Your task to perform on an android device: Search for sushi restaurants on Maps Image 0: 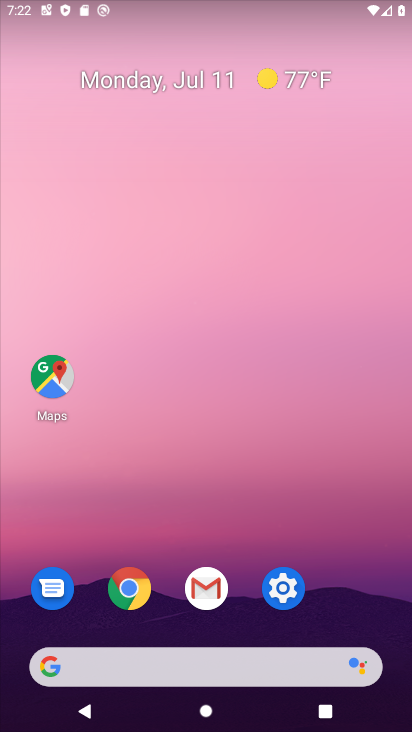
Step 0: click (51, 387)
Your task to perform on an android device: Search for sushi restaurants on Maps Image 1: 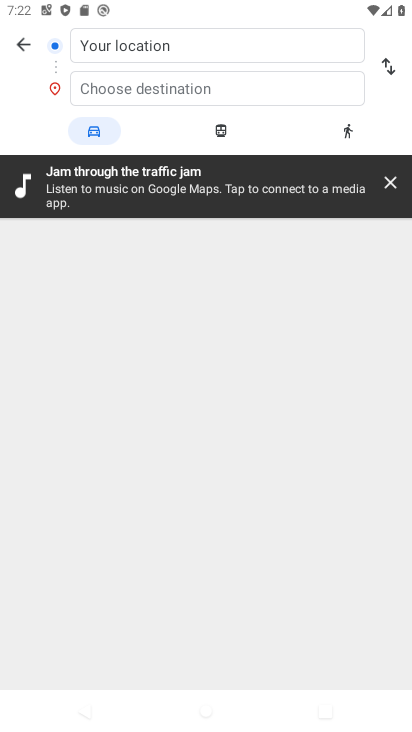
Step 1: click (26, 42)
Your task to perform on an android device: Search for sushi restaurants on Maps Image 2: 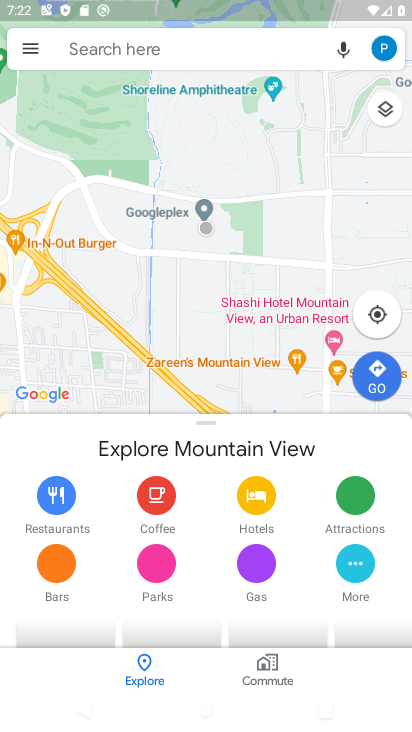
Step 2: click (144, 49)
Your task to perform on an android device: Search for sushi restaurants on Maps Image 3: 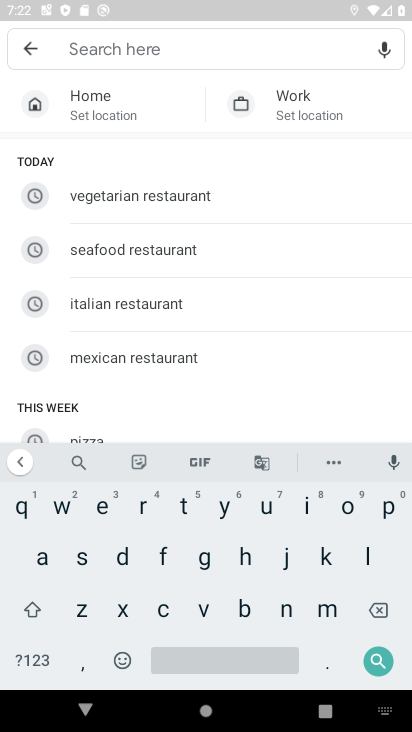
Step 3: click (73, 559)
Your task to perform on an android device: Search for sushi restaurants on Maps Image 4: 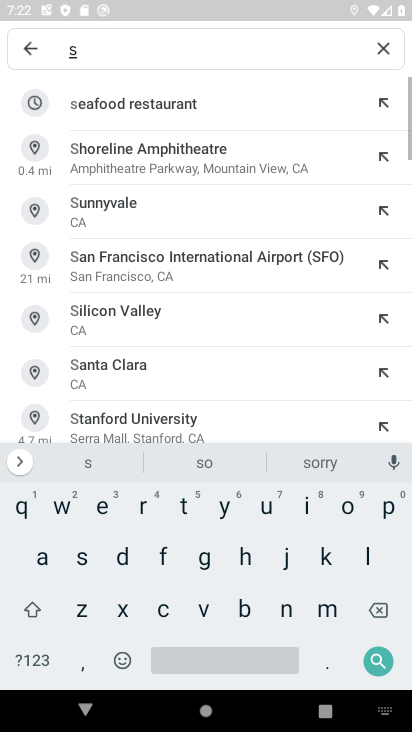
Step 4: click (270, 510)
Your task to perform on an android device: Search for sushi restaurants on Maps Image 5: 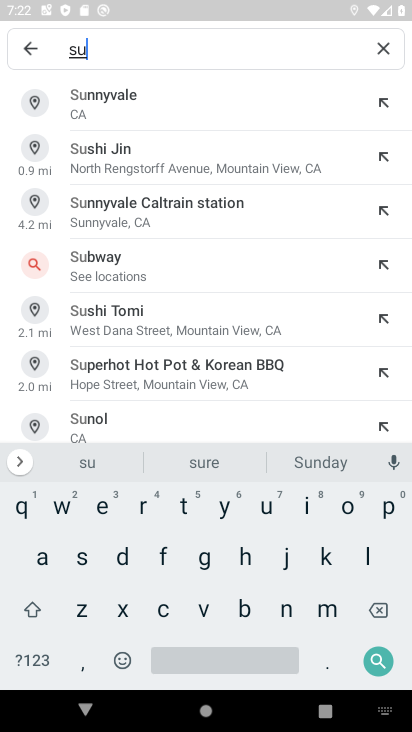
Step 5: click (81, 553)
Your task to perform on an android device: Search for sushi restaurants on Maps Image 6: 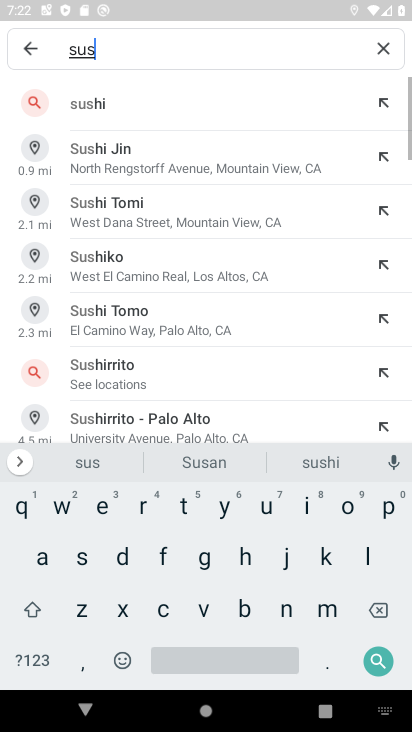
Step 6: click (245, 556)
Your task to perform on an android device: Search for sushi restaurants on Maps Image 7: 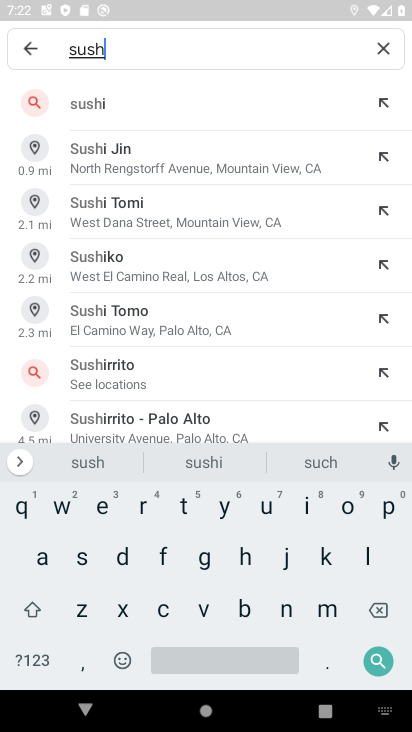
Step 7: click (204, 455)
Your task to perform on an android device: Search for sushi restaurants on Maps Image 8: 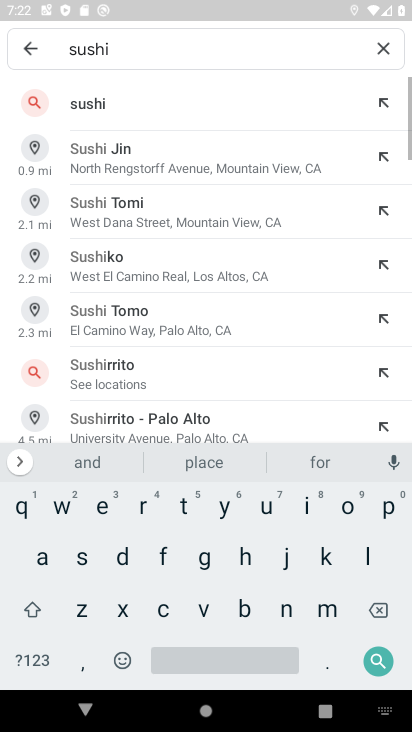
Step 8: click (137, 505)
Your task to perform on an android device: Search for sushi restaurants on Maps Image 9: 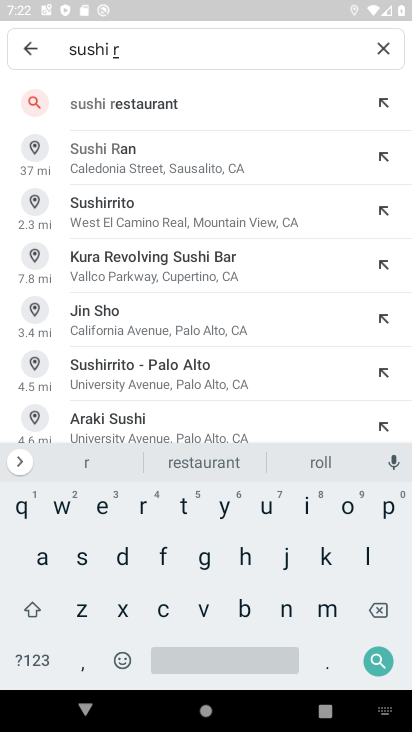
Step 9: click (145, 109)
Your task to perform on an android device: Search for sushi restaurants on Maps Image 10: 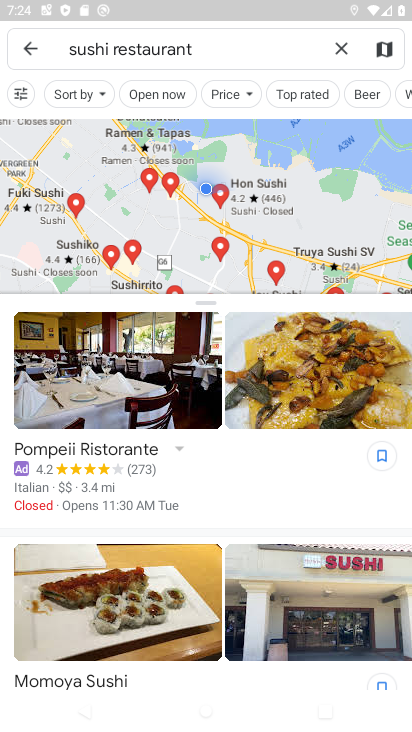
Step 10: task complete